Your task to perform on an android device: stop showing notifications on the lock screen Image 0: 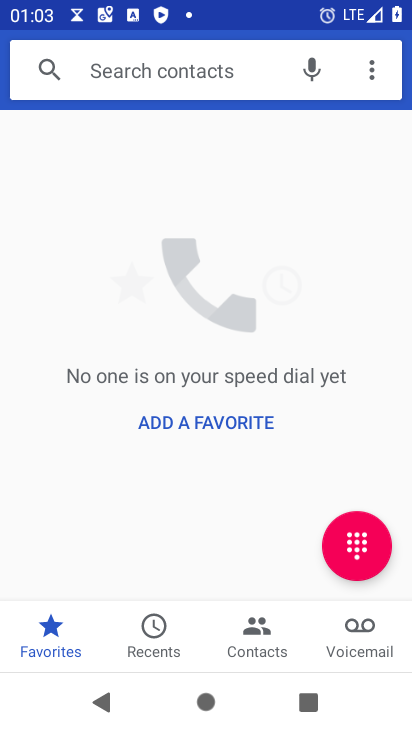
Step 0: press home button
Your task to perform on an android device: stop showing notifications on the lock screen Image 1: 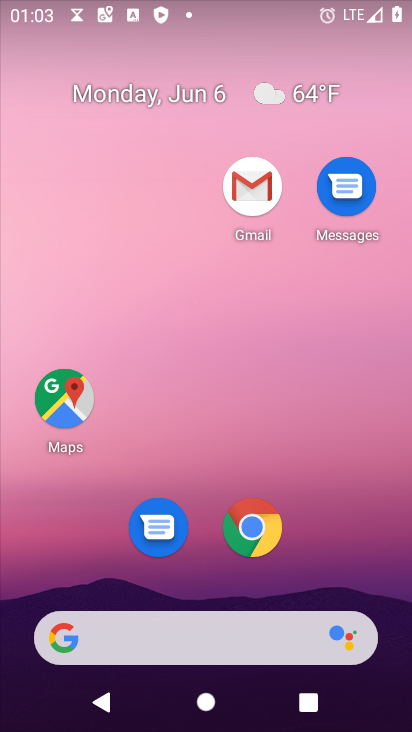
Step 1: drag from (366, 484) to (373, 79)
Your task to perform on an android device: stop showing notifications on the lock screen Image 2: 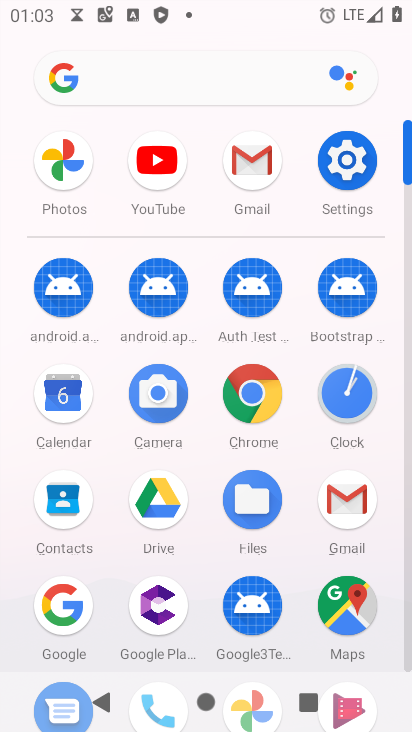
Step 2: click (349, 152)
Your task to perform on an android device: stop showing notifications on the lock screen Image 3: 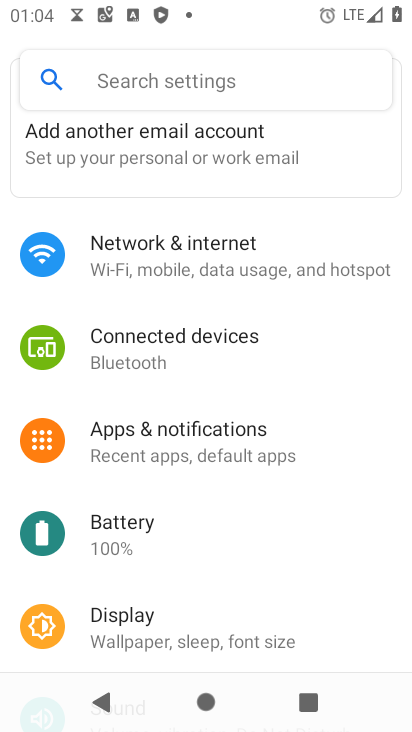
Step 3: click (236, 423)
Your task to perform on an android device: stop showing notifications on the lock screen Image 4: 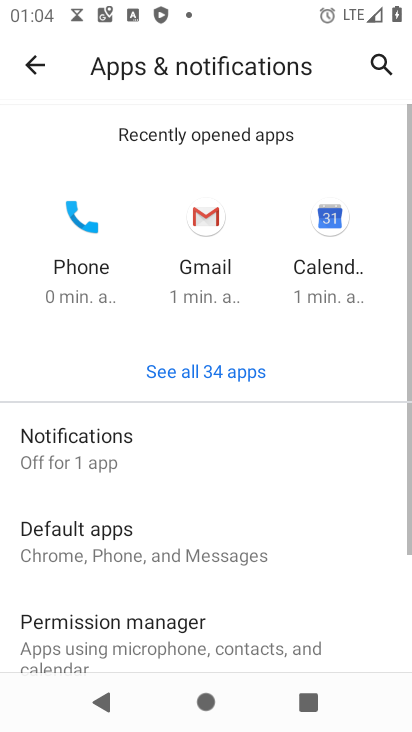
Step 4: click (160, 458)
Your task to perform on an android device: stop showing notifications on the lock screen Image 5: 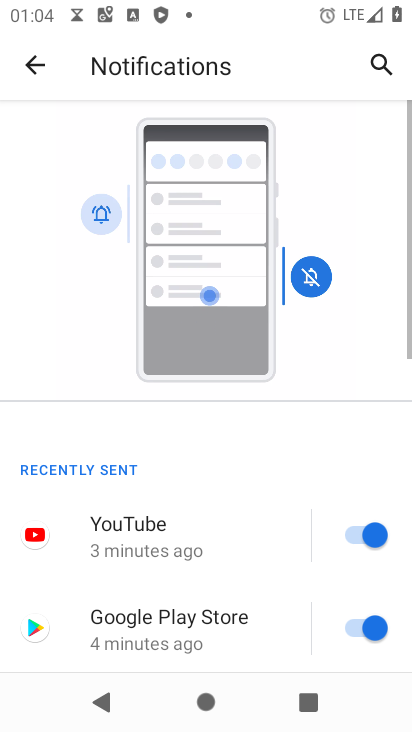
Step 5: drag from (163, 553) to (193, 123)
Your task to perform on an android device: stop showing notifications on the lock screen Image 6: 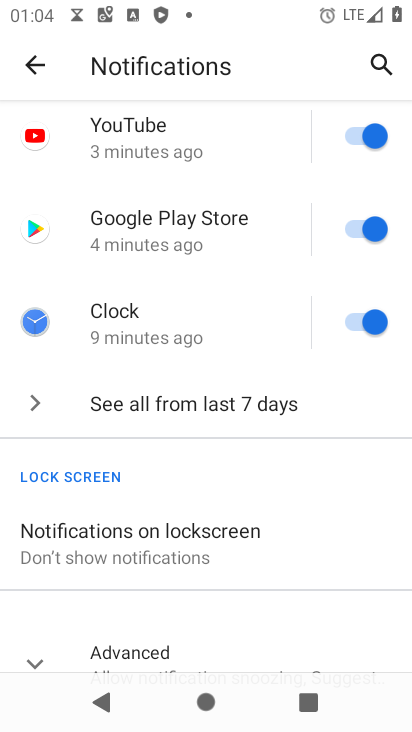
Step 6: click (147, 531)
Your task to perform on an android device: stop showing notifications on the lock screen Image 7: 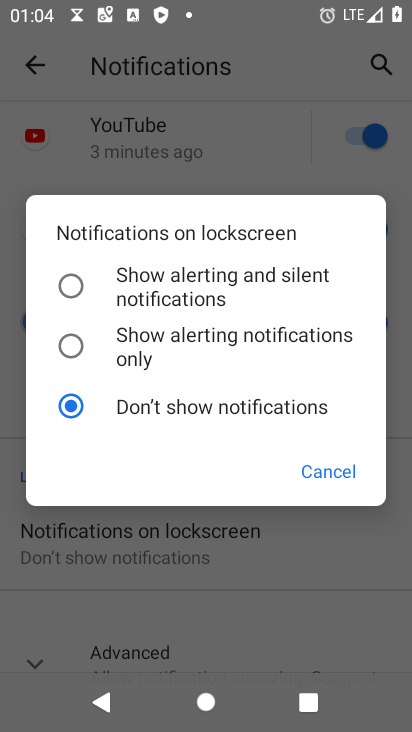
Step 7: click (175, 408)
Your task to perform on an android device: stop showing notifications on the lock screen Image 8: 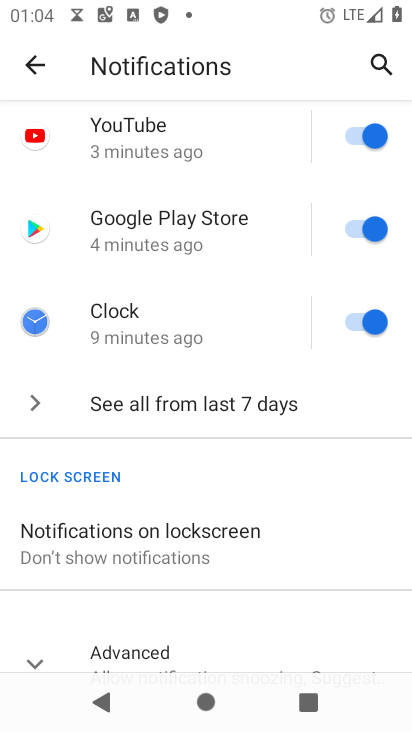
Step 8: task complete